Your task to perform on an android device: turn off notifications settings in the gmail app Image 0: 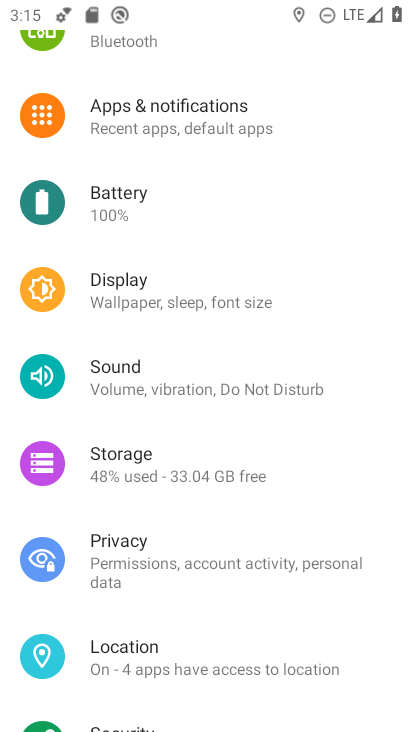
Step 0: press home button
Your task to perform on an android device: turn off notifications settings in the gmail app Image 1: 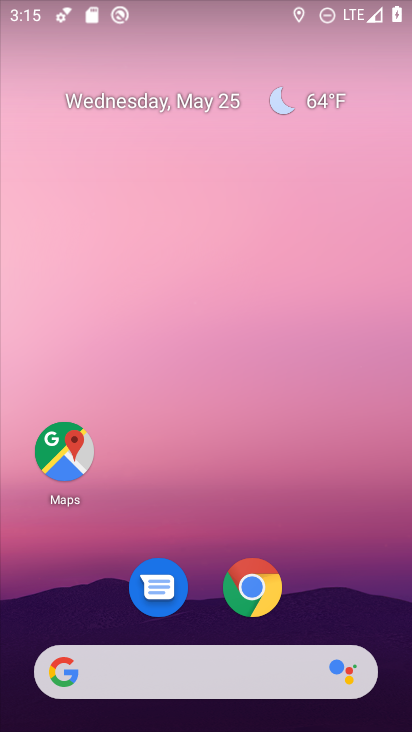
Step 1: drag from (336, 618) to (277, 269)
Your task to perform on an android device: turn off notifications settings in the gmail app Image 2: 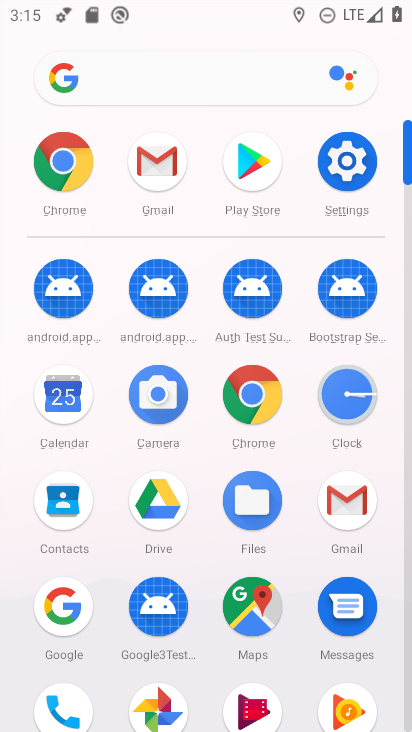
Step 2: click (165, 169)
Your task to perform on an android device: turn off notifications settings in the gmail app Image 3: 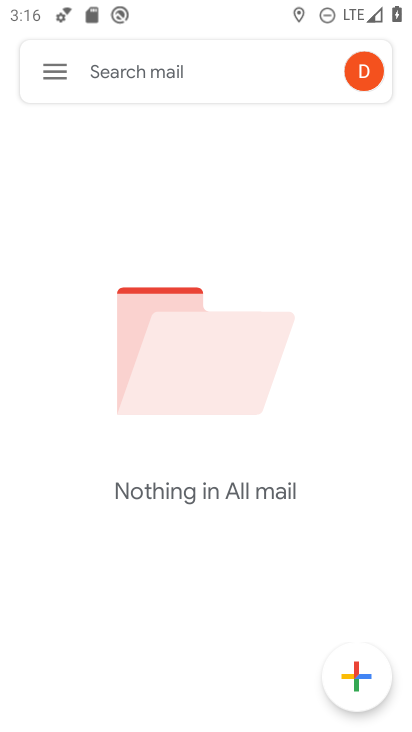
Step 3: click (58, 83)
Your task to perform on an android device: turn off notifications settings in the gmail app Image 4: 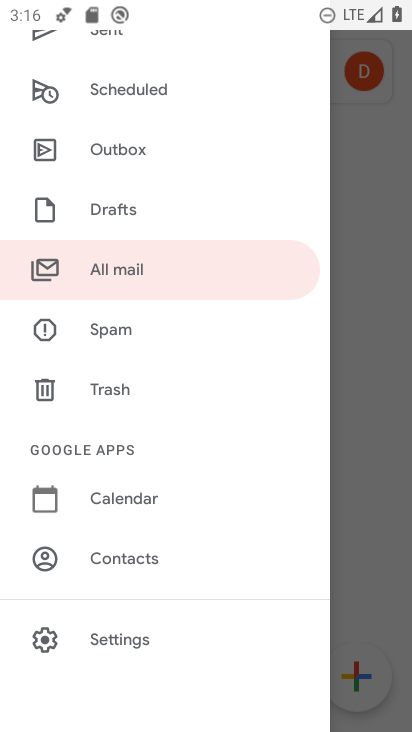
Step 4: click (125, 637)
Your task to perform on an android device: turn off notifications settings in the gmail app Image 5: 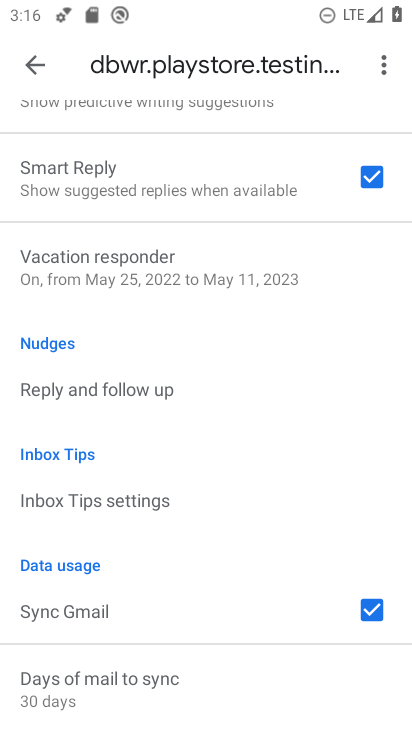
Step 5: drag from (187, 224) to (197, 615)
Your task to perform on an android device: turn off notifications settings in the gmail app Image 6: 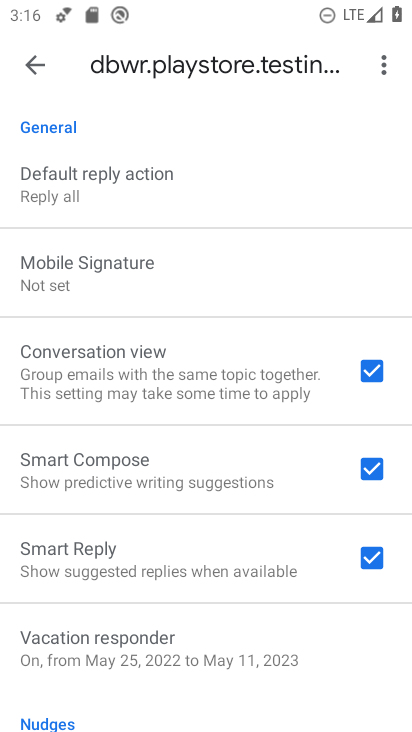
Step 6: drag from (179, 205) to (158, 600)
Your task to perform on an android device: turn off notifications settings in the gmail app Image 7: 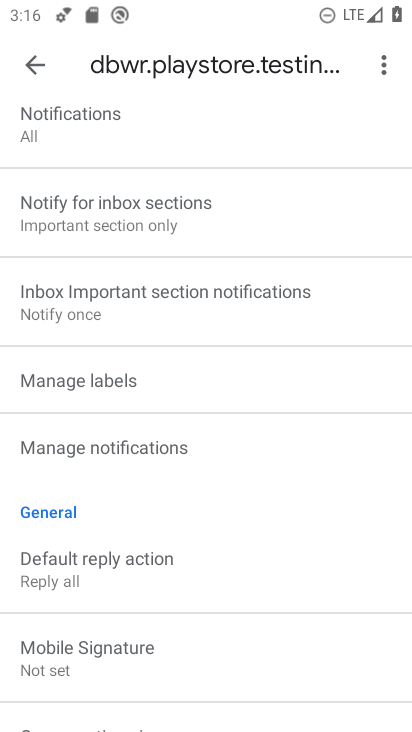
Step 7: click (156, 452)
Your task to perform on an android device: turn off notifications settings in the gmail app Image 8: 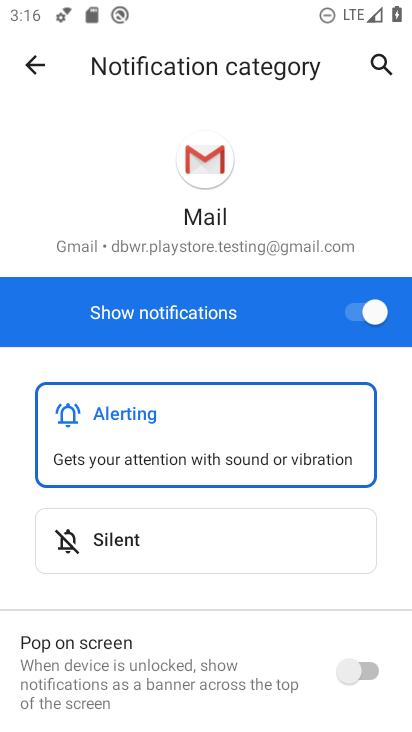
Step 8: task complete